Your task to perform on an android device: star an email in the gmail app Image 0: 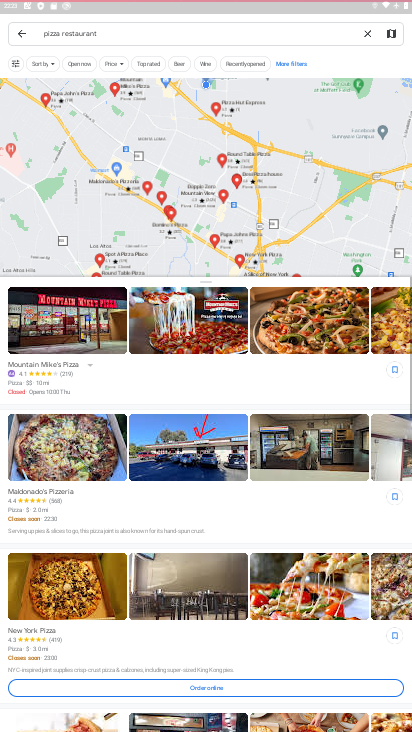
Step 0: drag from (199, 630) to (225, 316)
Your task to perform on an android device: star an email in the gmail app Image 1: 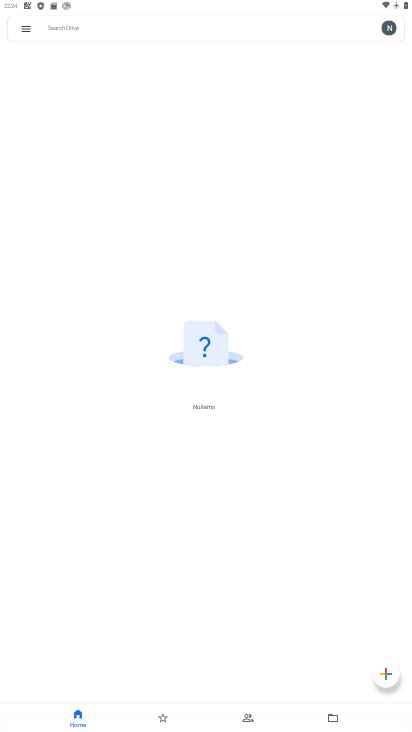
Step 1: press home button
Your task to perform on an android device: star an email in the gmail app Image 2: 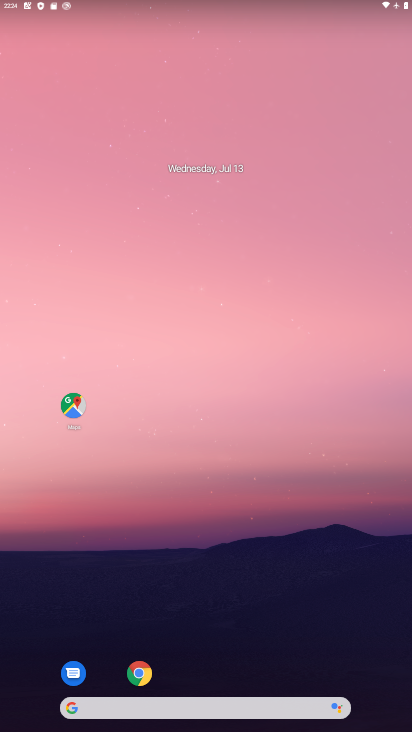
Step 2: drag from (201, 659) to (251, 249)
Your task to perform on an android device: star an email in the gmail app Image 3: 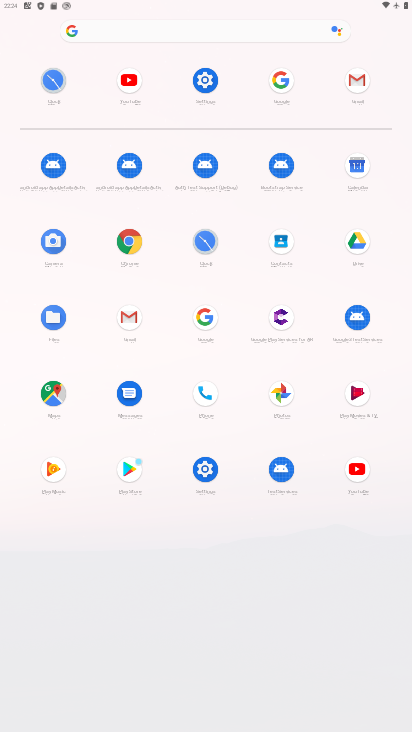
Step 3: click (345, 76)
Your task to perform on an android device: star an email in the gmail app Image 4: 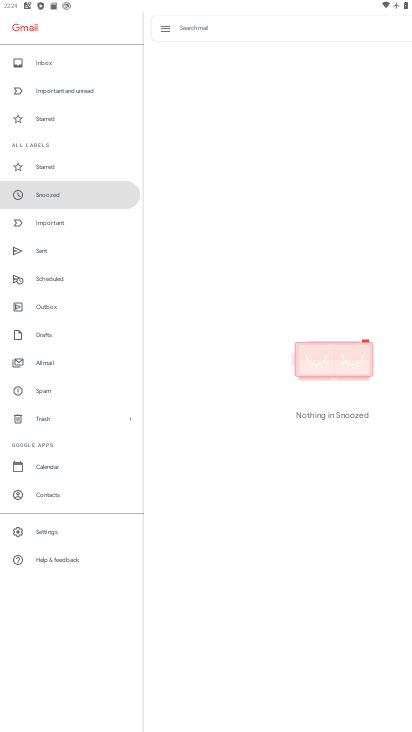
Step 4: click (47, 360)
Your task to perform on an android device: star an email in the gmail app Image 5: 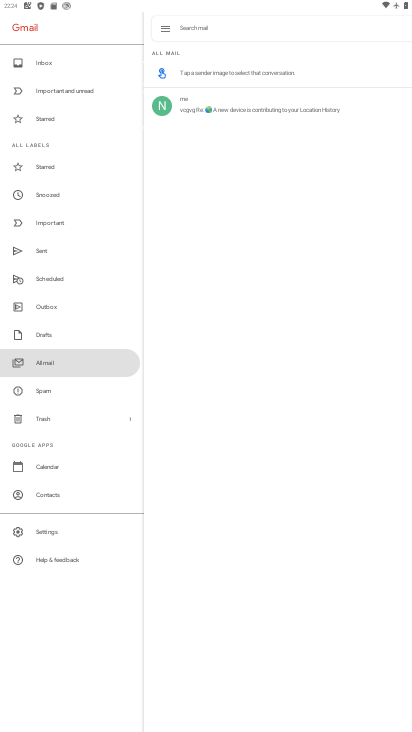
Step 5: click (274, 110)
Your task to perform on an android device: star an email in the gmail app Image 6: 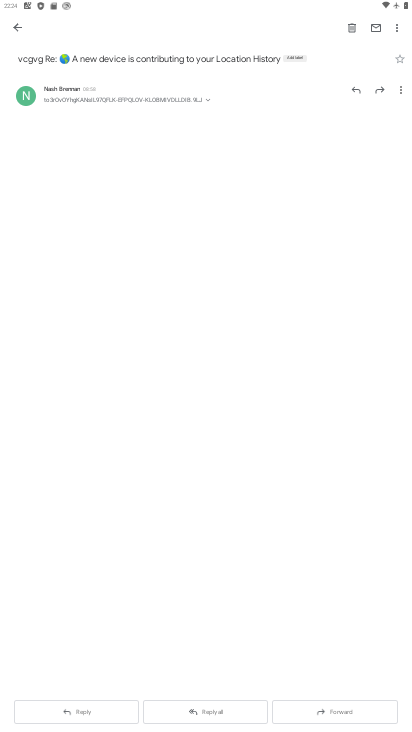
Step 6: click (401, 62)
Your task to perform on an android device: star an email in the gmail app Image 7: 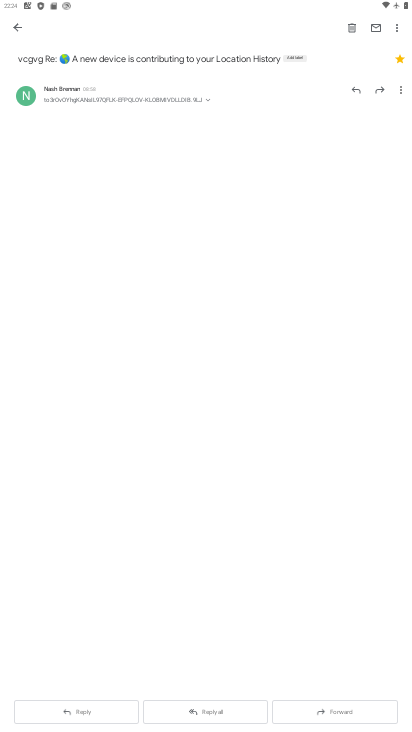
Step 7: task complete